Your task to perform on an android device: Is it going to rain tomorrow? Image 0: 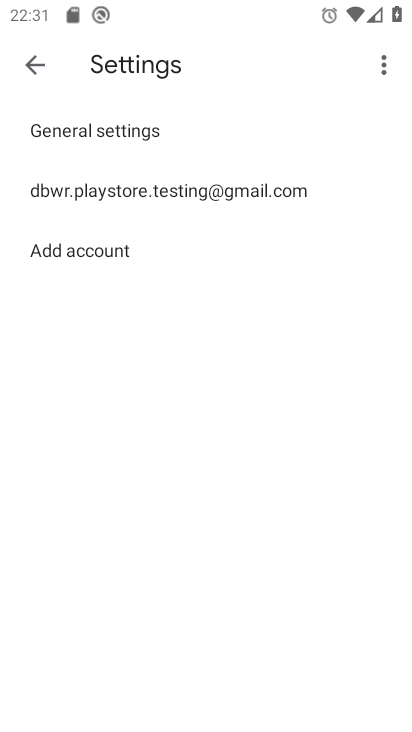
Step 0: press home button
Your task to perform on an android device: Is it going to rain tomorrow? Image 1: 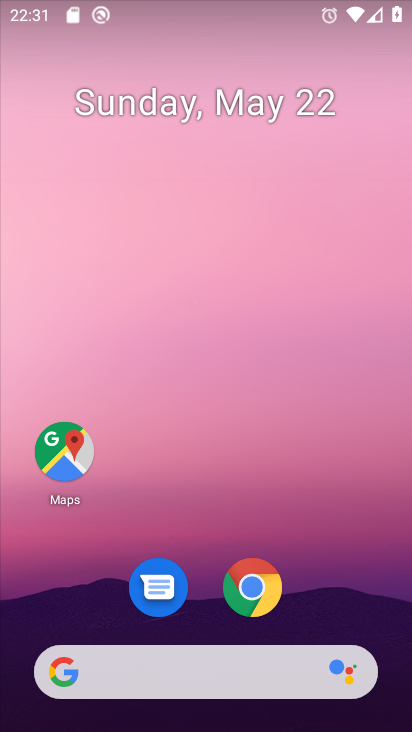
Step 1: click (205, 680)
Your task to perform on an android device: Is it going to rain tomorrow? Image 2: 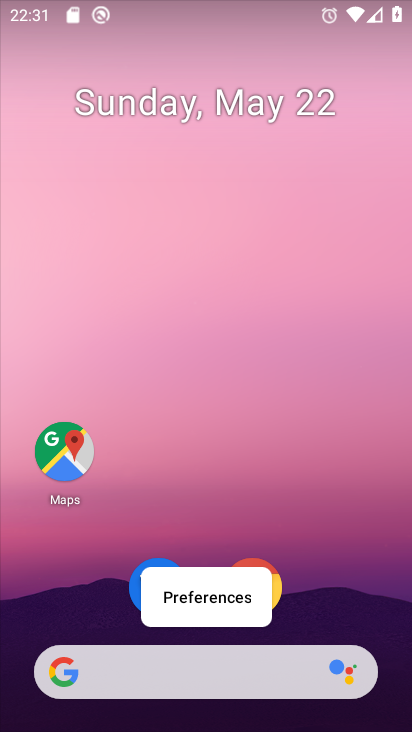
Step 2: click (213, 679)
Your task to perform on an android device: Is it going to rain tomorrow? Image 3: 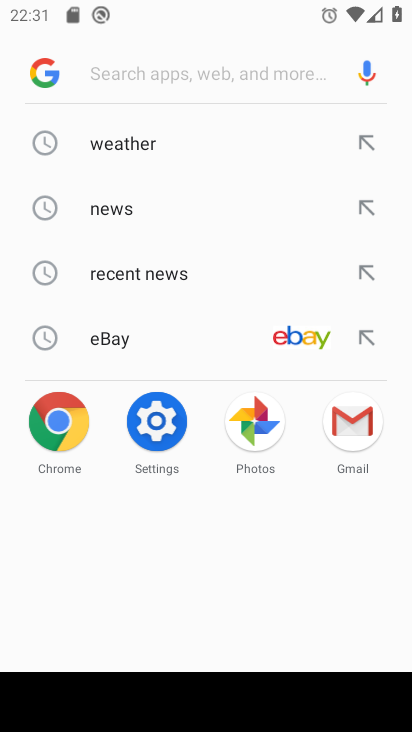
Step 3: click (92, 142)
Your task to perform on an android device: Is it going to rain tomorrow? Image 4: 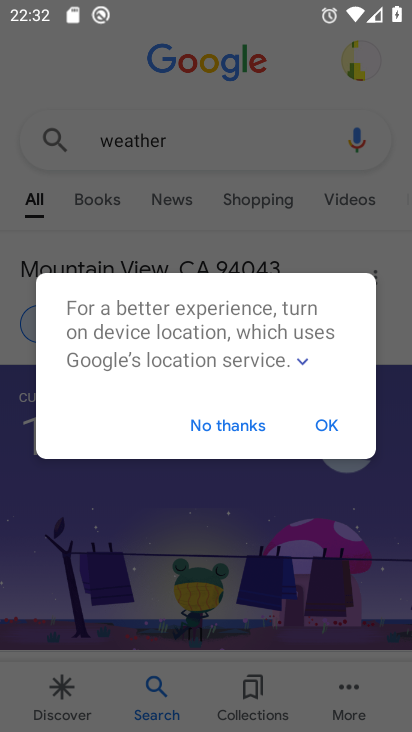
Step 4: click (333, 418)
Your task to perform on an android device: Is it going to rain tomorrow? Image 5: 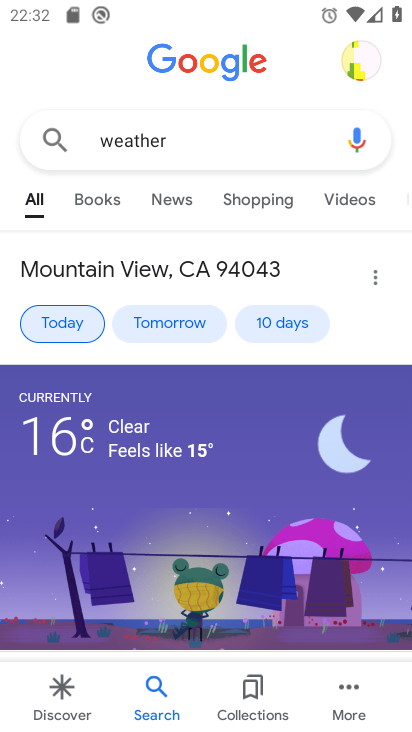
Step 5: click (72, 319)
Your task to perform on an android device: Is it going to rain tomorrow? Image 6: 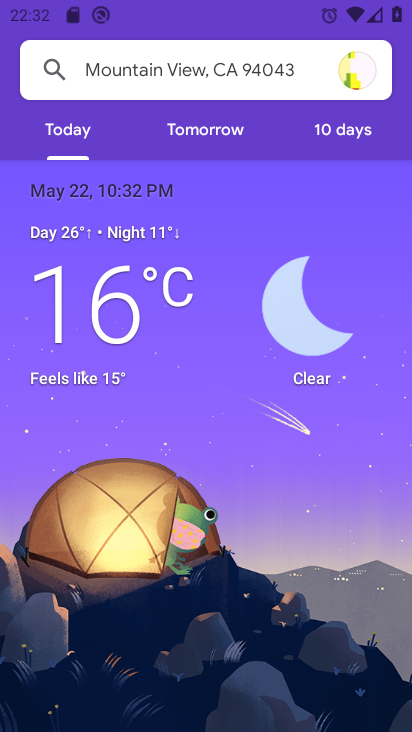
Step 6: click (208, 130)
Your task to perform on an android device: Is it going to rain tomorrow? Image 7: 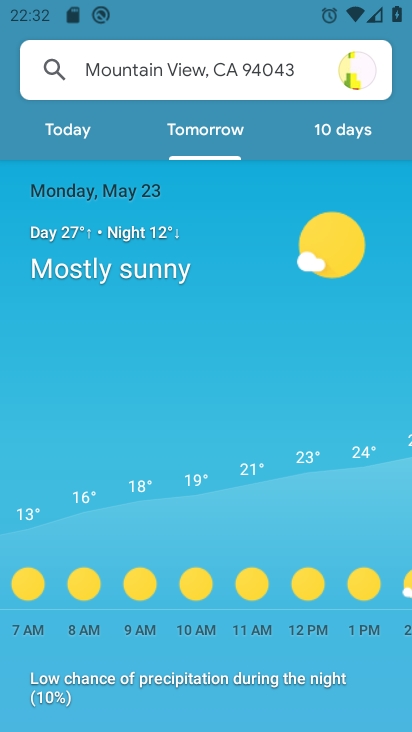
Step 7: task complete